Your task to perform on an android device: clear all cookies in the chrome app Image 0: 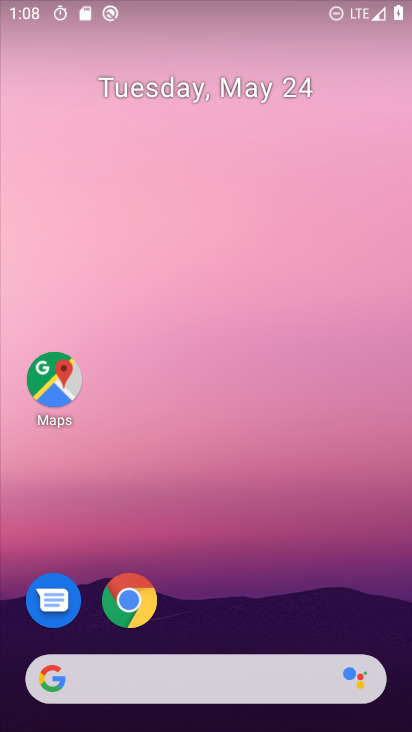
Step 0: drag from (275, 574) to (257, 170)
Your task to perform on an android device: clear all cookies in the chrome app Image 1: 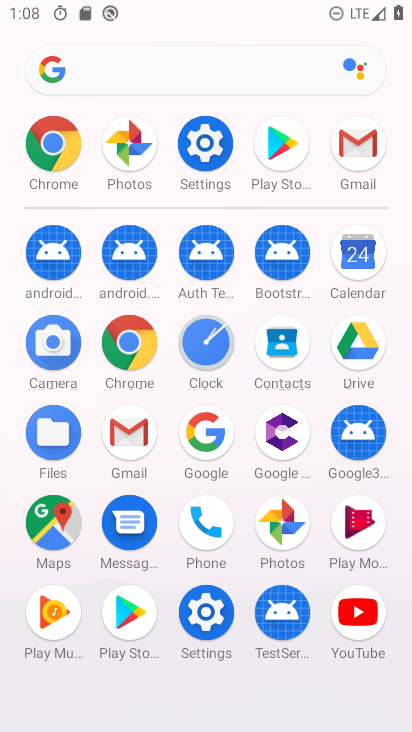
Step 1: click (135, 343)
Your task to perform on an android device: clear all cookies in the chrome app Image 2: 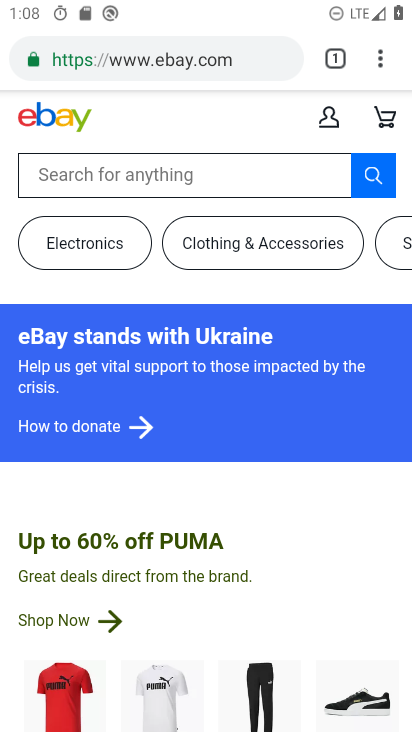
Step 2: click (386, 51)
Your task to perform on an android device: clear all cookies in the chrome app Image 3: 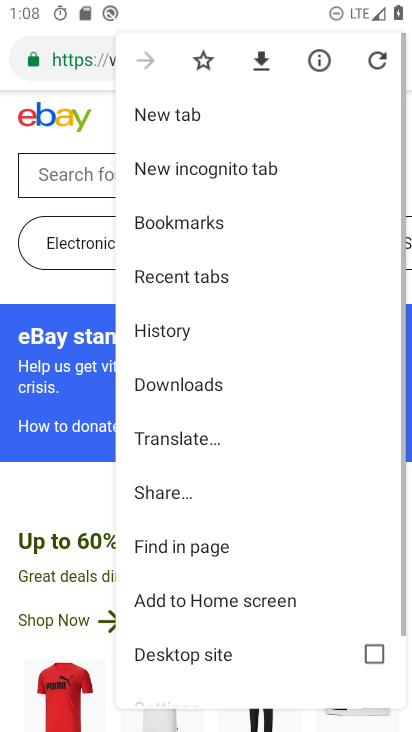
Step 3: drag from (203, 492) to (277, 79)
Your task to perform on an android device: clear all cookies in the chrome app Image 4: 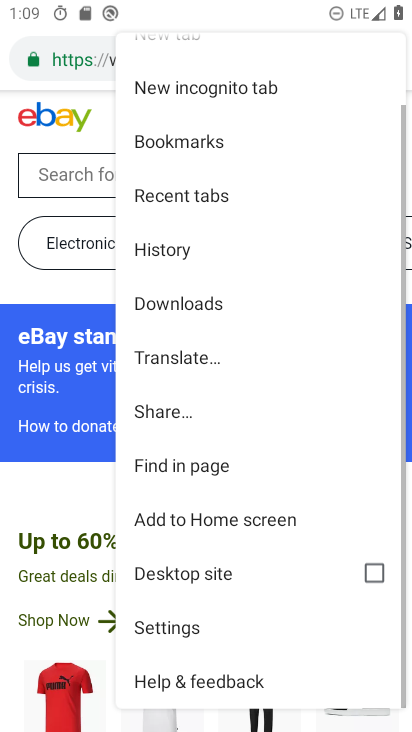
Step 4: click (178, 617)
Your task to perform on an android device: clear all cookies in the chrome app Image 5: 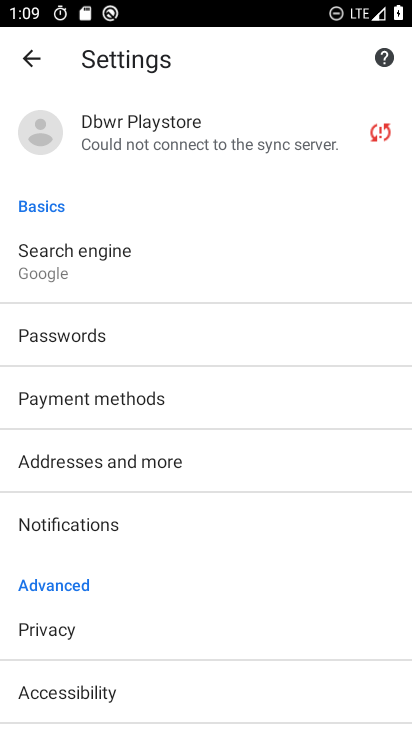
Step 5: drag from (190, 579) to (228, 180)
Your task to perform on an android device: clear all cookies in the chrome app Image 6: 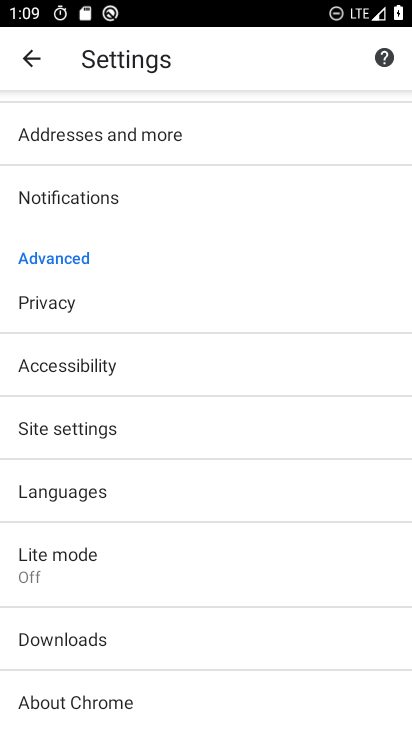
Step 6: click (40, 55)
Your task to perform on an android device: clear all cookies in the chrome app Image 7: 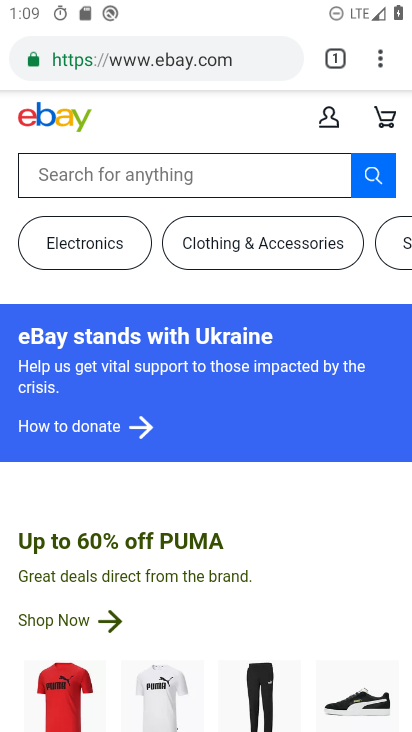
Step 7: click (386, 64)
Your task to perform on an android device: clear all cookies in the chrome app Image 8: 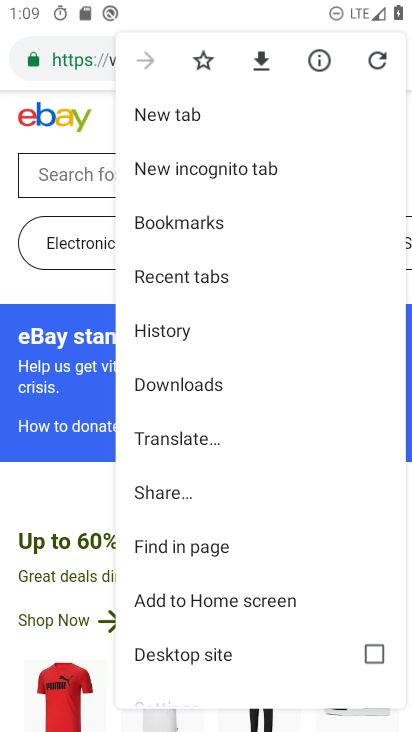
Step 8: click (186, 349)
Your task to perform on an android device: clear all cookies in the chrome app Image 9: 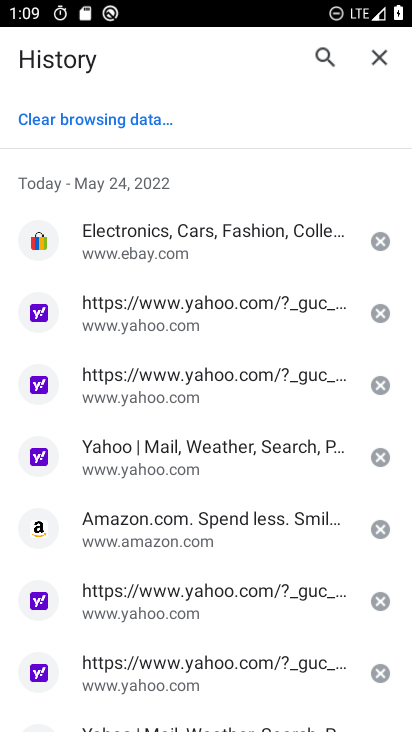
Step 9: click (125, 112)
Your task to perform on an android device: clear all cookies in the chrome app Image 10: 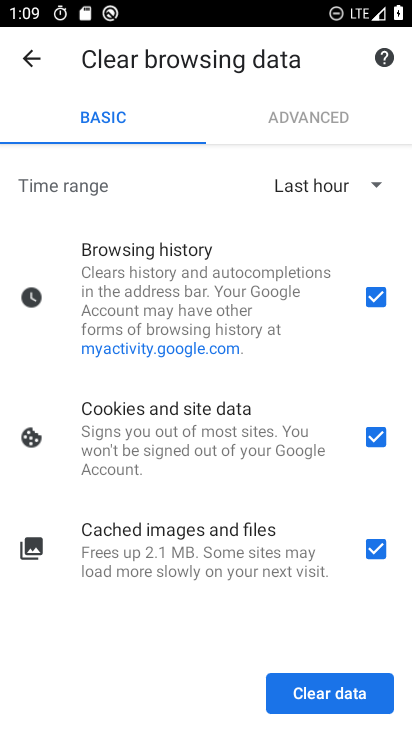
Step 10: click (340, 187)
Your task to perform on an android device: clear all cookies in the chrome app Image 11: 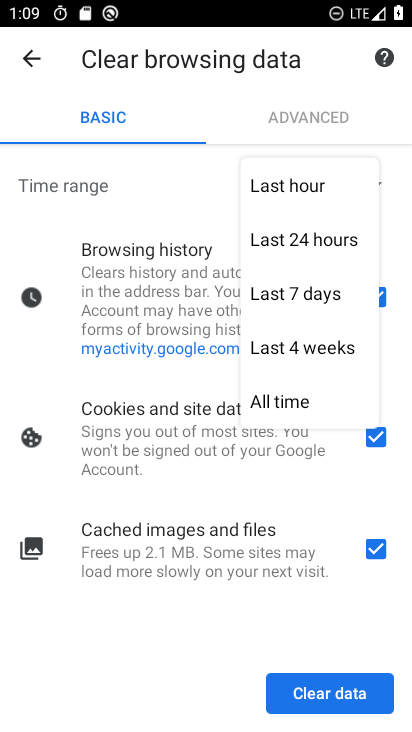
Step 11: click (280, 399)
Your task to perform on an android device: clear all cookies in the chrome app Image 12: 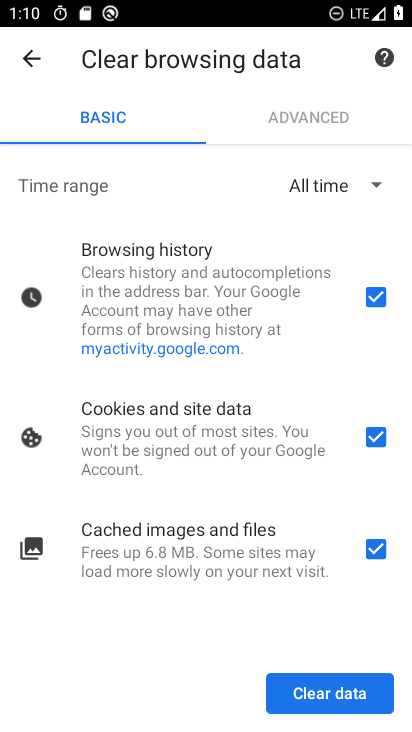
Step 12: click (375, 701)
Your task to perform on an android device: clear all cookies in the chrome app Image 13: 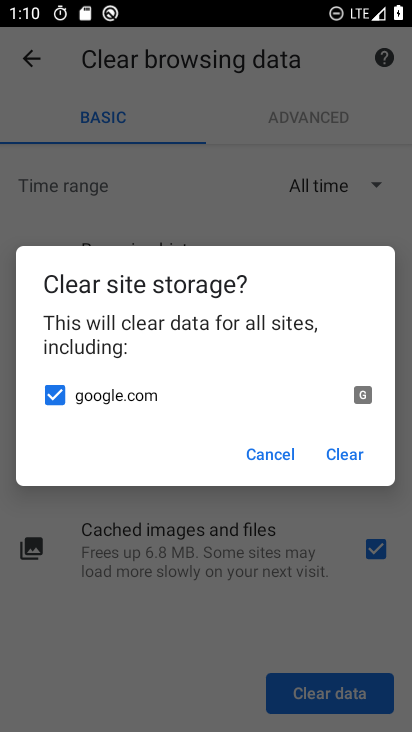
Step 13: click (354, 445)
Your task to perform on an android device: clear all cookies in the chrome app Image 14: 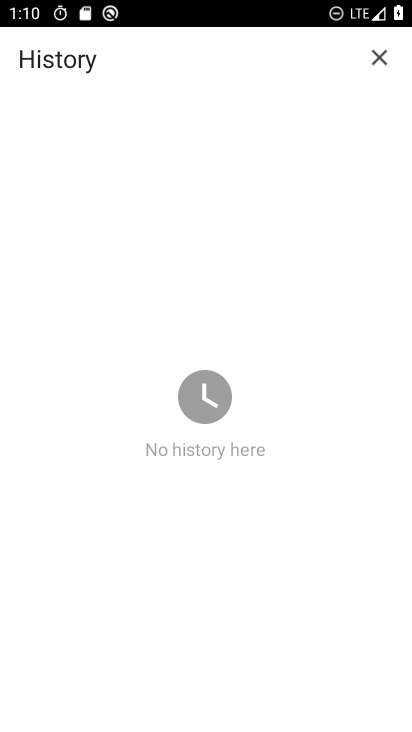
Step 14: task complete